Your task to perform on an android device: Open Maps and search for coffee Image 0: 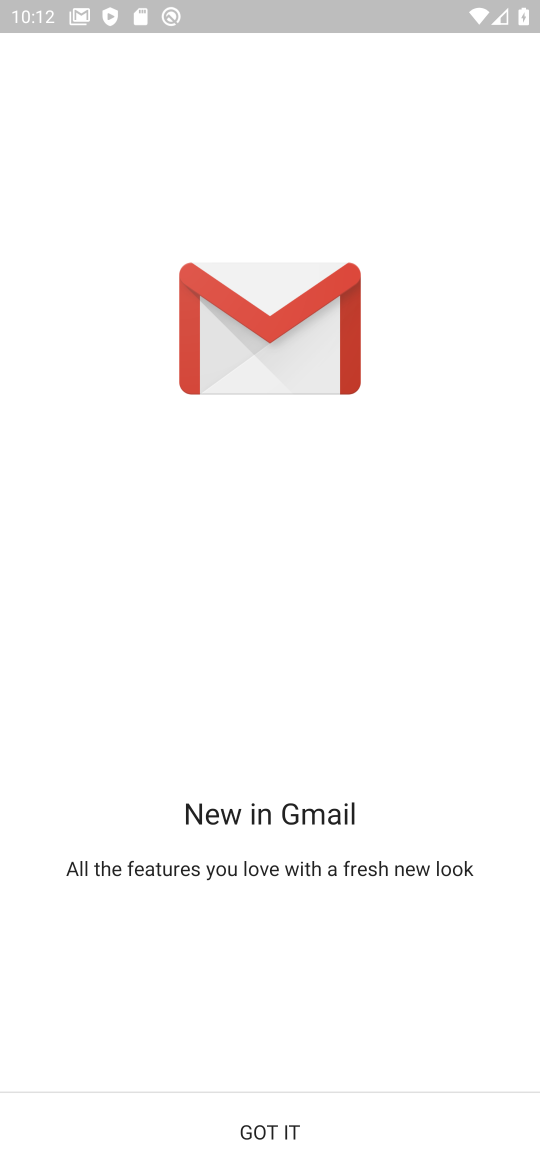
Step 0: press home button
Your task to perform on an android device: Open Maps and search for coffee Image 1: 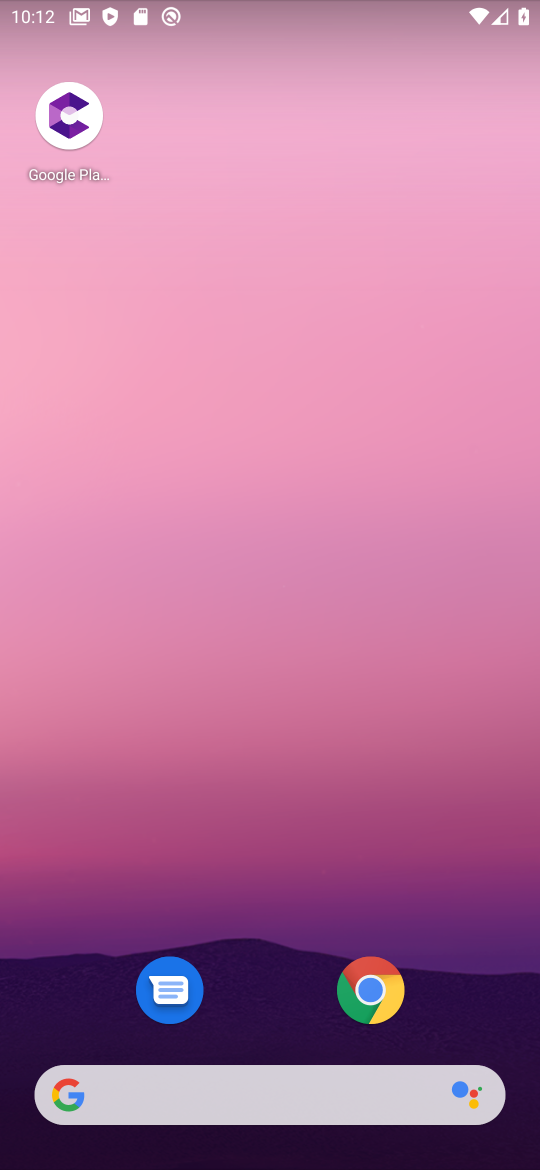
Step 1: drag from (270, 932) to (245, 227)
Your task to perform on an android device: Open Maps and search for coffee Image 2: 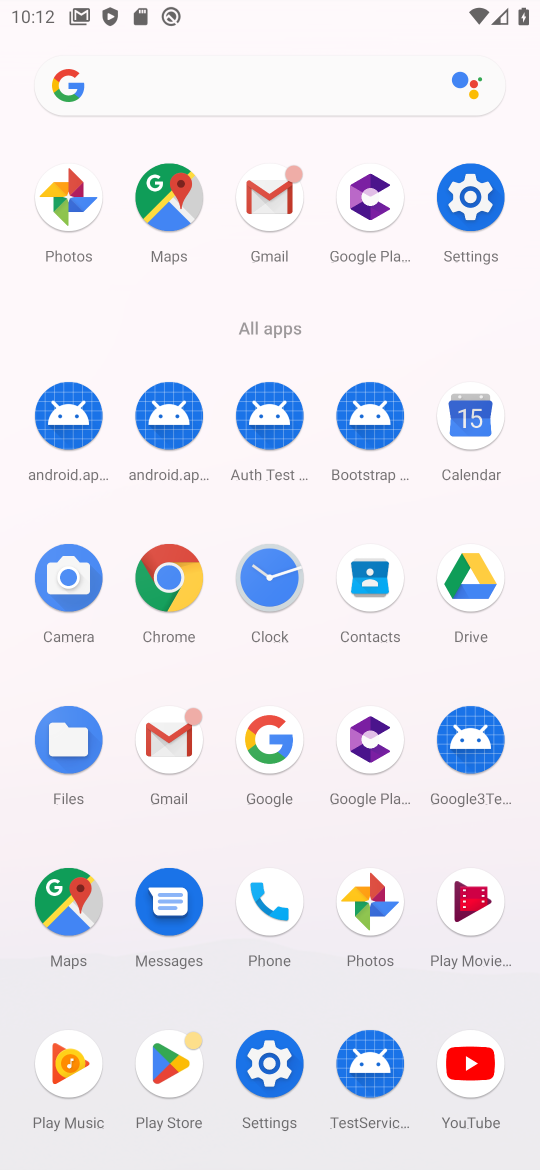
Step 2: click (66, 894)
Your task to perform on an android device: Open Maps and search for coffee Image 3: 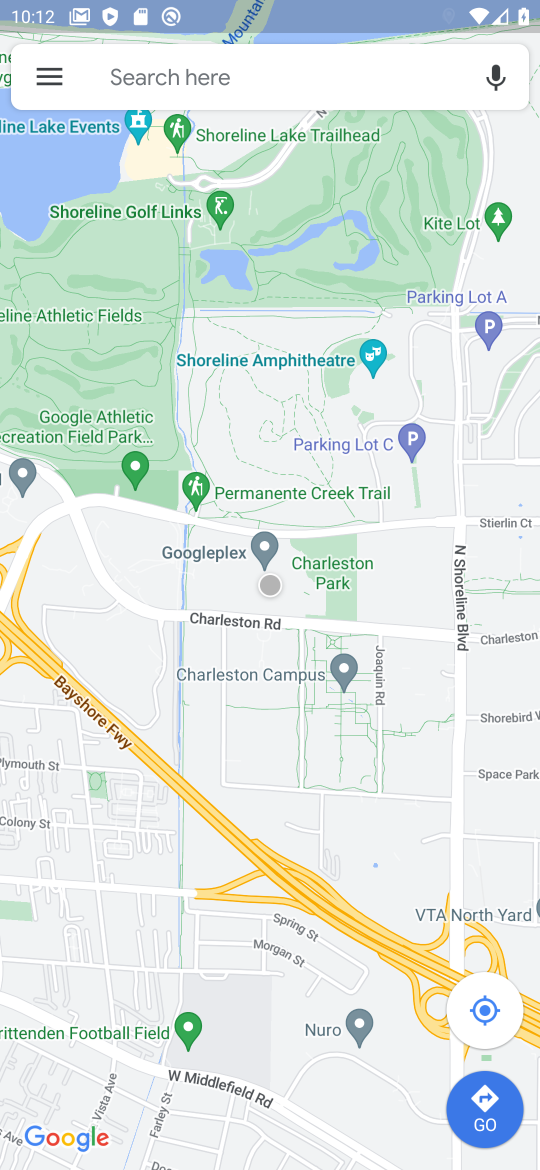
Step 3: click (177, 68)
Your task to perform on an android device: Open Maps and search for coffee Image 4: 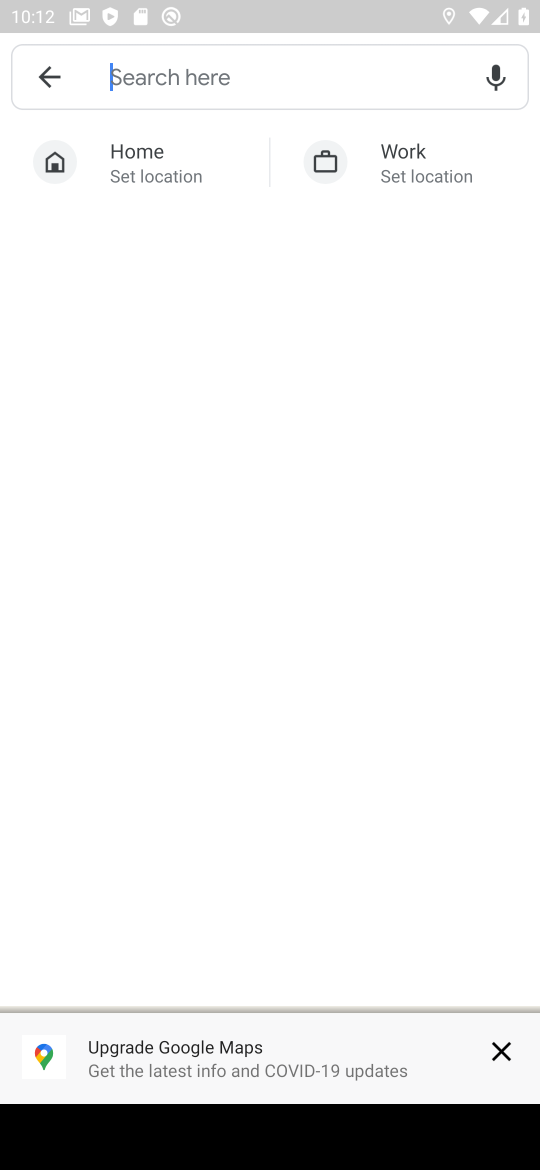
Step 4: type "coffee"
Your task to perform on an android device: Open Maps and search for coffee Image 5: 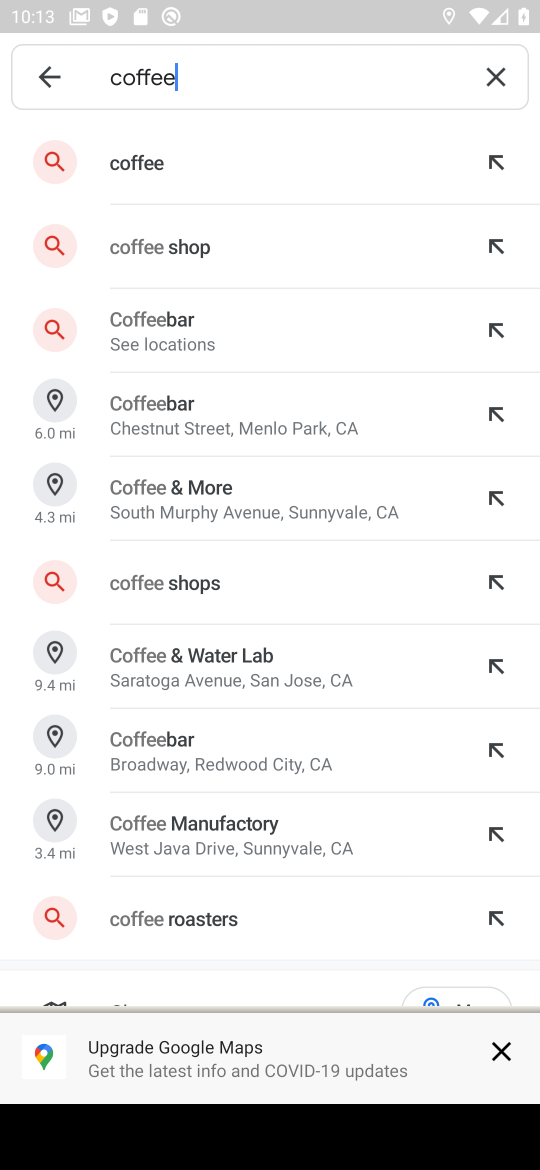
Step 5: click (149, 152)
Your task to perform on an android device: Open Maps and search for coffee Image 6: 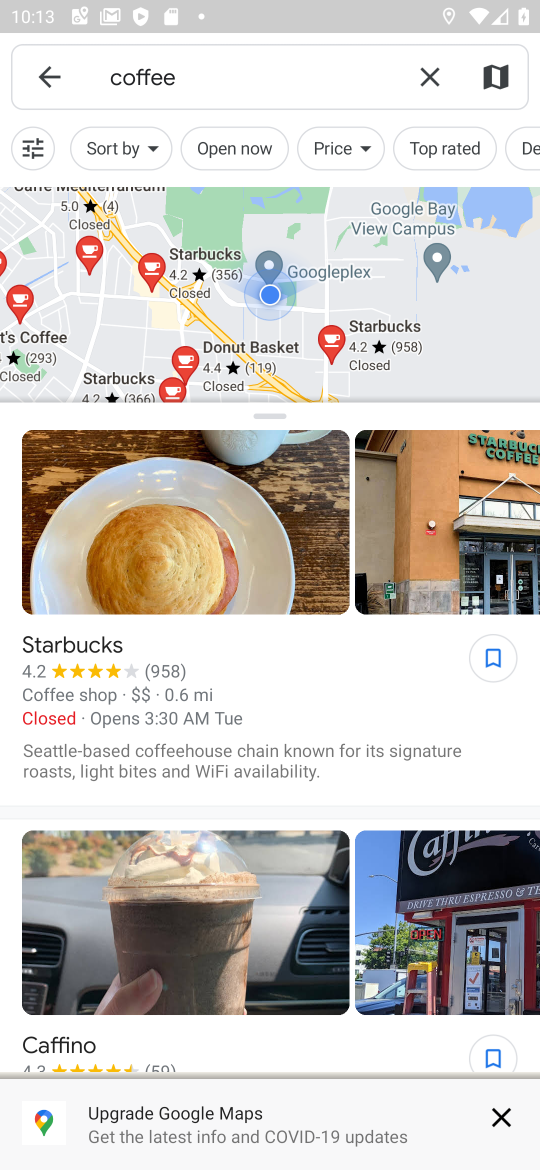
Step 6: task complete